Your task to perform on an android device: Search for usb-a to usb-b on amazon.com, select the first entry, add it to the cart, then select checkout. Image 0: 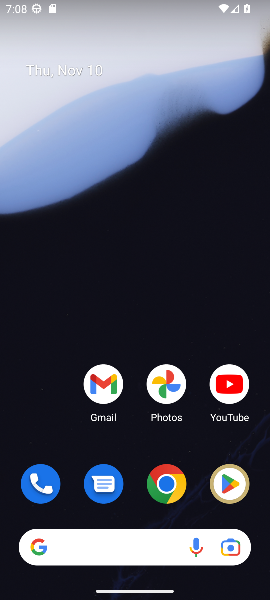
Step 0: click (169, 492)
Your task to perform on an android device: Search for usb-a to usb-b on amazon.com, select the first entry, add it to the cart, then select checkout. Image 1: 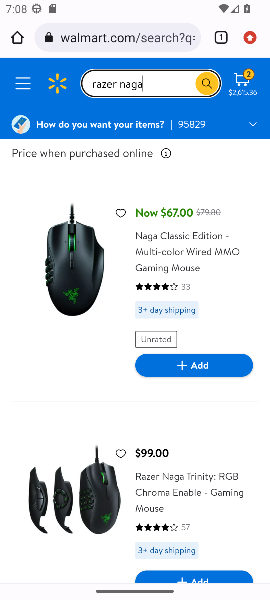
Step 1: click (117, 40)
Your task to perform on an android device: Search for usb-a to usb-b on amazon.com, select the first entry, add it to the cart, then select checkout. Image 2: 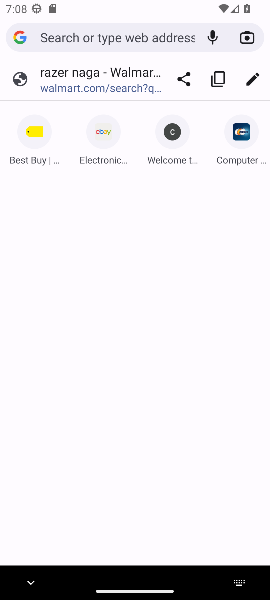
Step 2: type "amazon.com"
Your task to perform on an android device: Search for usb-a to usb-b on amazon.com, select the first entry, add it to the cart, then select checkout. Image 3: 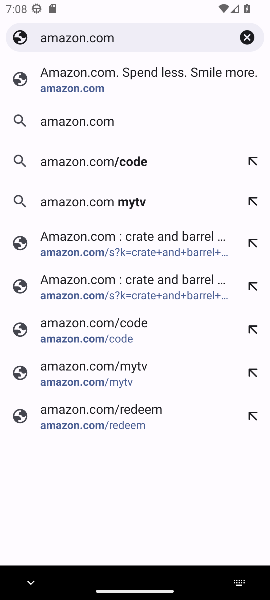
Step 3: click (68, 91)
Your task to perform on an android device: Search for usb-a to usb-b on amazon.com, select the first entry, add it to the cart, then select checkout. Image 4: 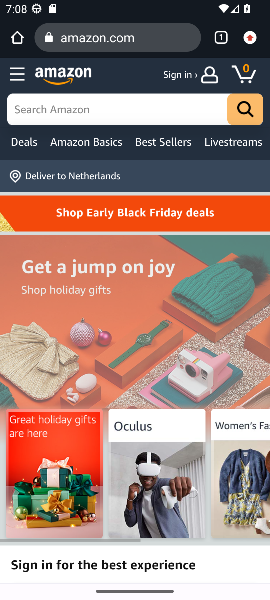
Step 4: click (72, 112)
Your task to perform on an android device: Search for usb-a to usb-b on amazon.com, select the first entry, add it to the cart, then select checkout. Image 5: 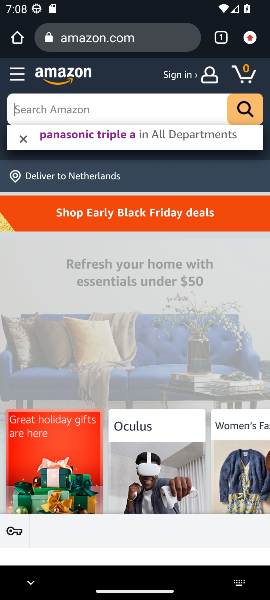
Step 5: type " usb-a to usb-b"
Your task to perform on an android device: Search for usb-a to usb-b on amazon.com, select the first entry, add it to the cart, then select checkout. Image 6: 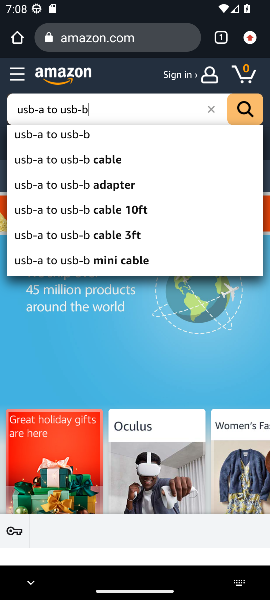
Step 6: click (61, 131)
Your task to perform on an android device: Search for usb-a to usb-b on amazon.com, select the first entry, add it to the cart, then select checkout. Image 7: 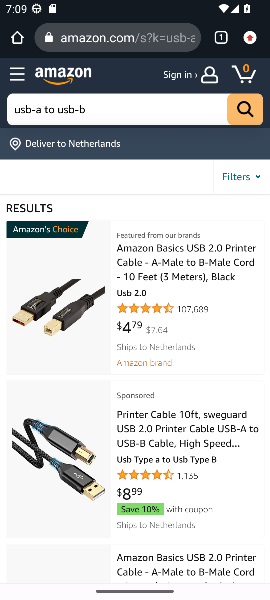
Step 7: click (80, 312)
Your task to perform on an android device: Search for usb-a to usb-b on amazon.com, select the first entry, add it to the cart, then select checkout. Image 8: 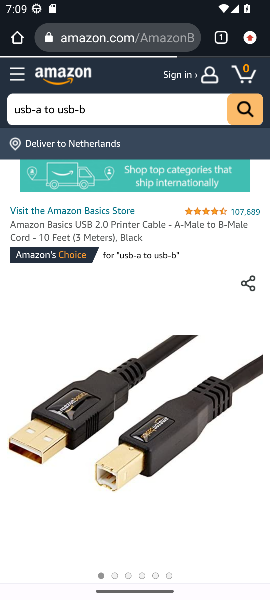
Step 8: drag from (115, 407) to (80, 218)
Your task to perform on an android device: Search for usb-a to usb-b on amazon.com, select the first entry, add it to the cart, then select checkout. Image 9: 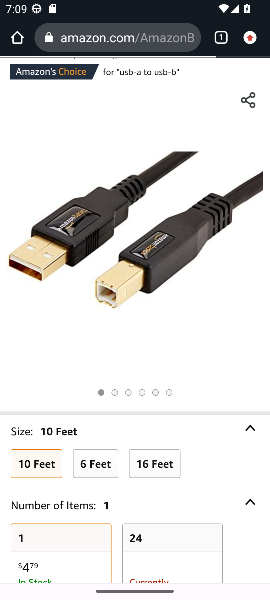
Step 9: drag from (112, 517) to (66, 195)
Your task to perform on an android device: Search for usb-a to usb-b on amazon.com, select the first entry, add it to the cart, then select checkout. Image 10: 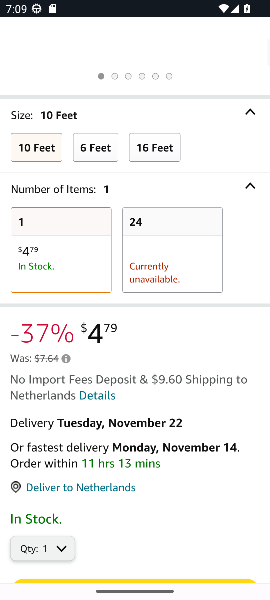
Step 10: drag from (85, 489) to (75, 276)
Your task to perform on an android device: Search for usb-a to usb-b on amazon.com, select the first entry, add it to the cart, then select checkout. Image 11: 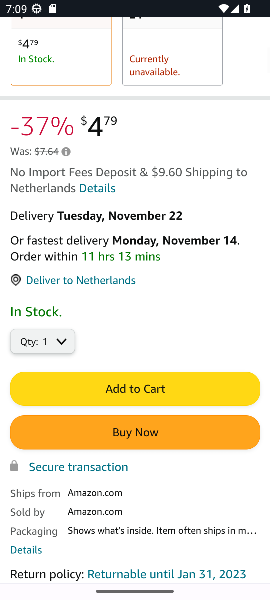
Step 11: click (113, 383)
Your task to perform on an android device: Search for usb-a to usb-b on amazon.com, select the first entry, add it to the cart, then select checkout. Image 12: 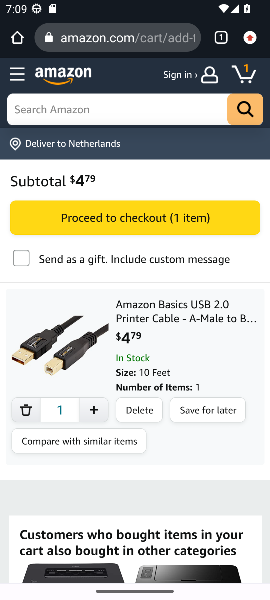
Step 12: click (118, 221)
Your task to perform on an android device: Search for usb-a to usb-b on amazon.com, select the first entry, add it to the cart, then select checkout. Image 13: 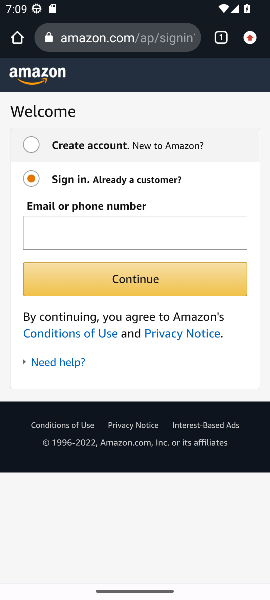
Step 13: task complete